Your task to perform on an android device: Set the phone to "Do not disturb". Image 0: 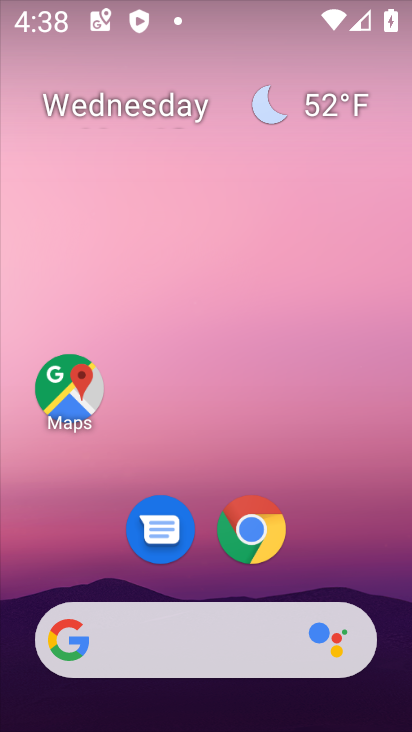
Step 0: drag from (343, 559) to (228, 55)
Your task to perform on an android device: Set the phone to "Do not disturb". Image 1: 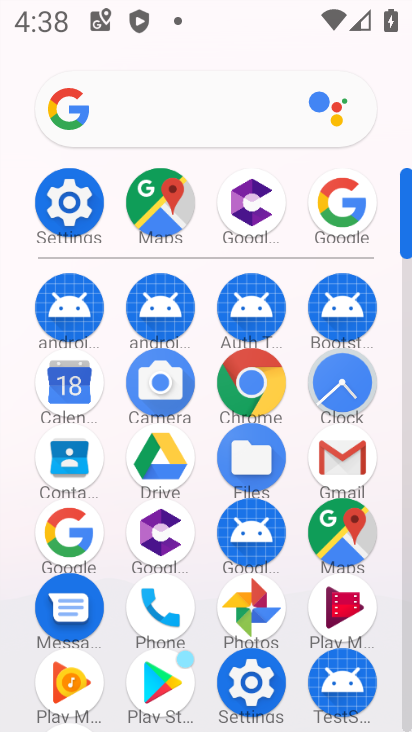
Step 1: click (69, 201)
Your task to perform on an android device: Set the phone to "Do not disturb". Image 2: 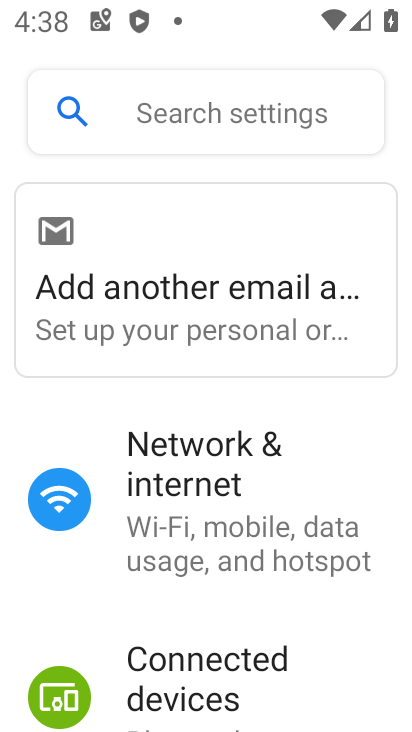
Step 2: drag from (161, 603) to (149, 412)
Your task to perform on an android device: Set the phone to "Do not disturb". Image 3: 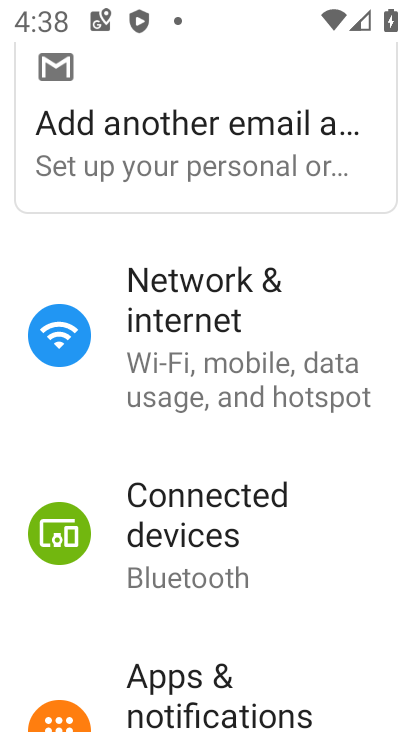
Step 3: drag from (124, 603) to (154, 431)
Your task to perform on an android device: Set the phone to "Do not disturb". Image 4: 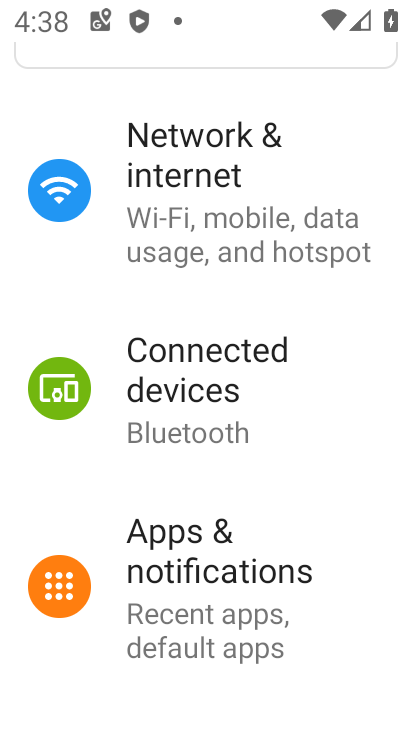
Step 4: drag from (127, 507) to (157, 356)
Your task to perform on an android device: Set the phone to "Do not disturb". Image 5: 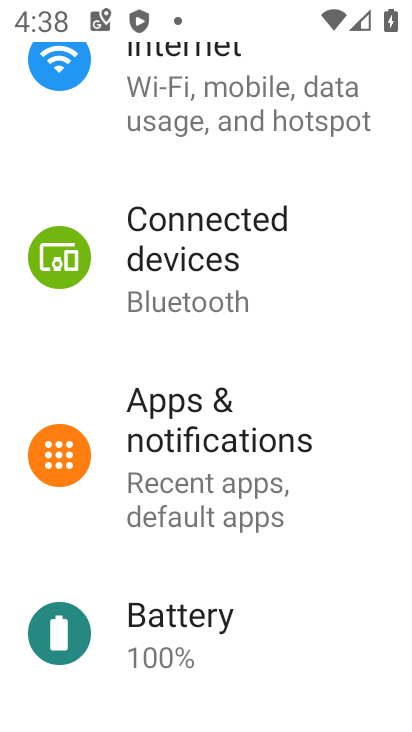
Step 5: drag from (163, 548) to (206, 308)
Your task to perform on an android device: Set the phone to "Do not disturb". Image 6: 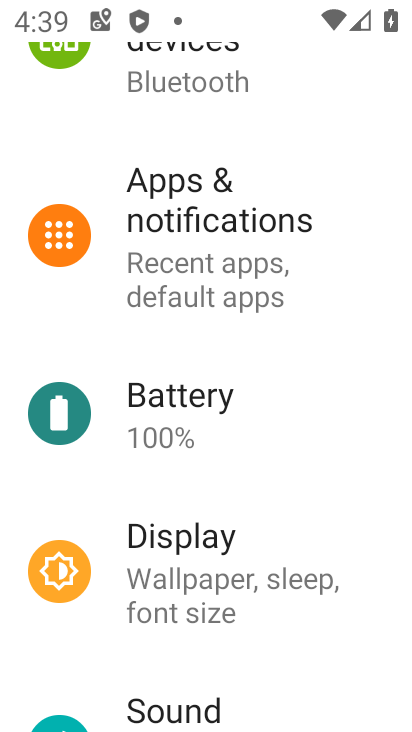
Step 6: drag from (180, 512) to (187, 315)
Your task to perform on an android device: Set the phone to "Do not disturb". Image 7: 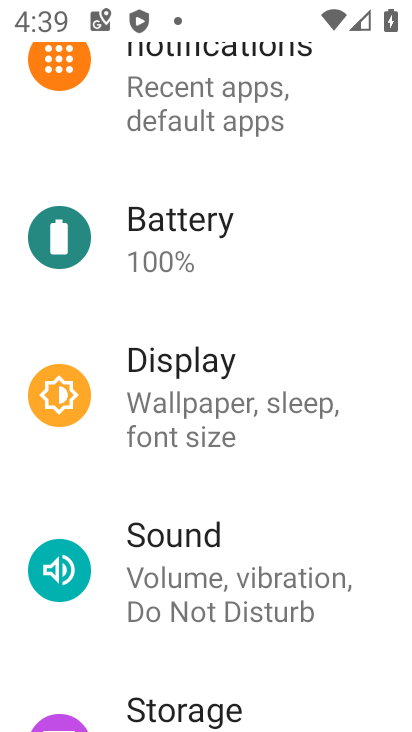
Step 7: click (179, 552)
Your task to perform on an android device: Set the phone to "Do not disturb". Image 8: 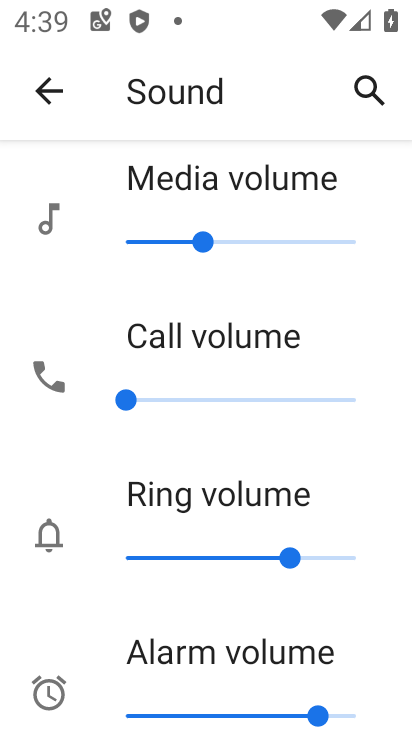
Step 8: drag from (218, 613) to (237, 474)
Your task to perform on an android device: Set the phone to "Do not disturb". Image 9: 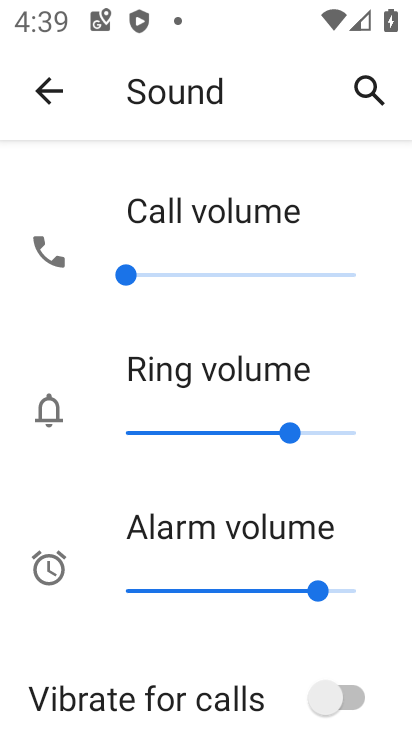
Step 9: drag from (198, 640) to (245, 482)
Your task to perform on an android device: Set the phone to "Do not disturb". Image 10: 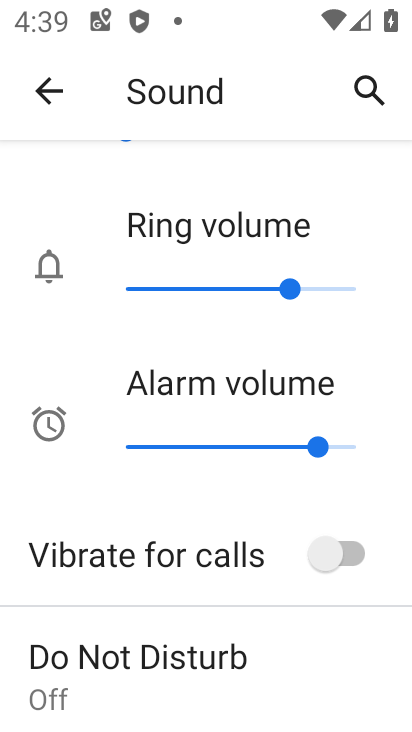
Step 10: drag from (187, 616) to (238, 472)
Your task to perform on an android device: Set the phone to "Do not disturb". Image 11: 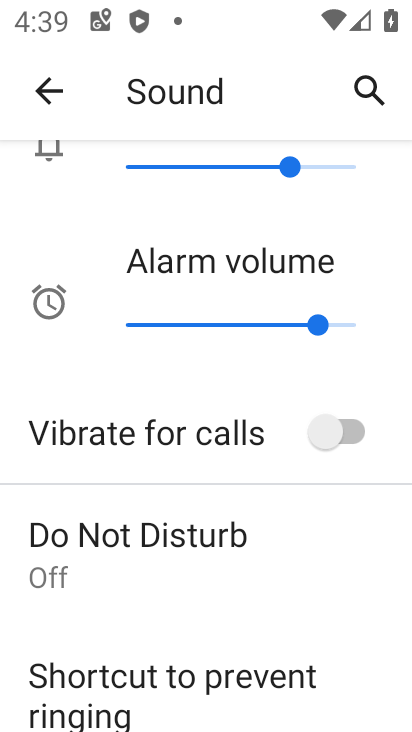
Step 11: click (184, 539)
Your task to perform on an android device: Set the phone to "Do not disturb". Image 12: 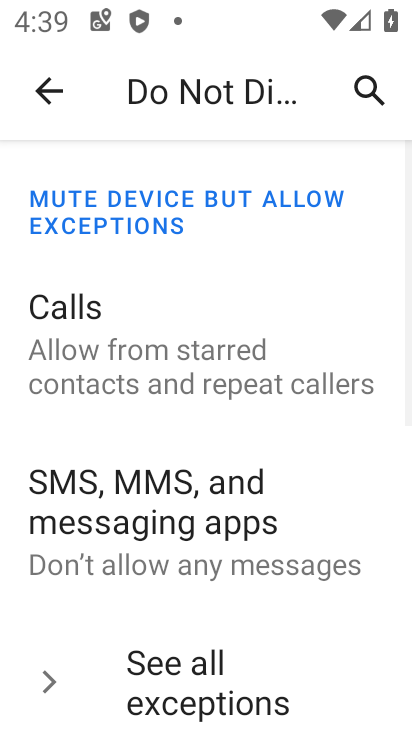
Step 12: drag from (238, 627) to (271, 494)
Your task to perform on an android device: Set the phone to "Do not disturb". Image 13: 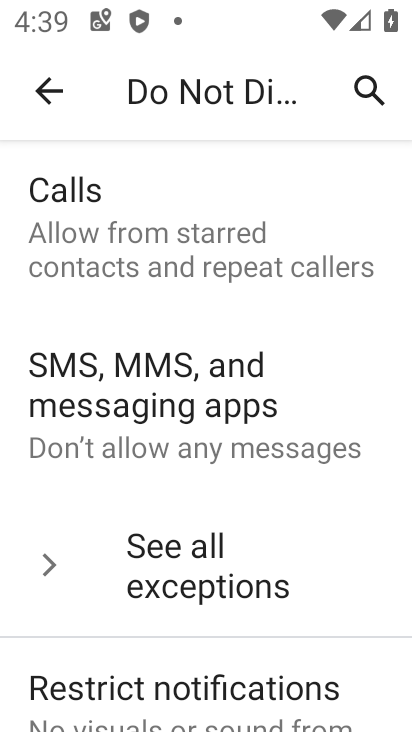
Step 13: drag from (223, 636) to (292, 474)
Your task to perform on an android device: Set the phone to "Do not disturb". Image 14: 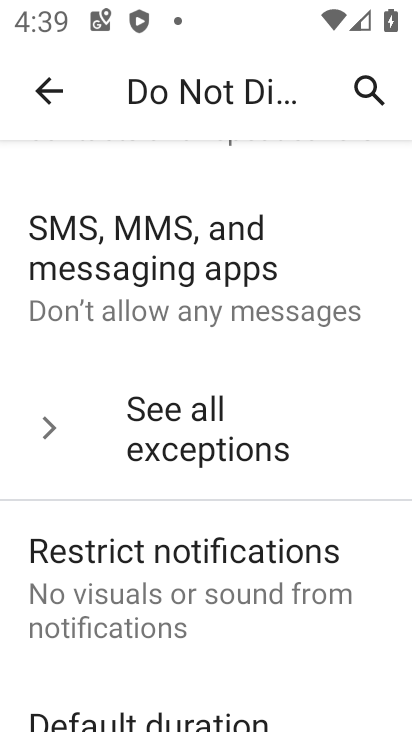
Step 14: drag from (220, 650) to (299, 478)
Your task to perform on an android device: Set the phone to "Do not disturb". Image 15: 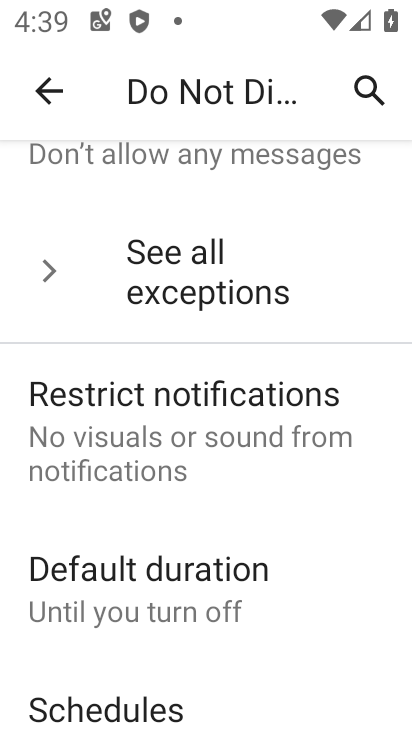
Step 15: drag from (241, 641) to (289, 351)
Your task to perform on an android device: Set the phone to "Do not disturb". Image 16: 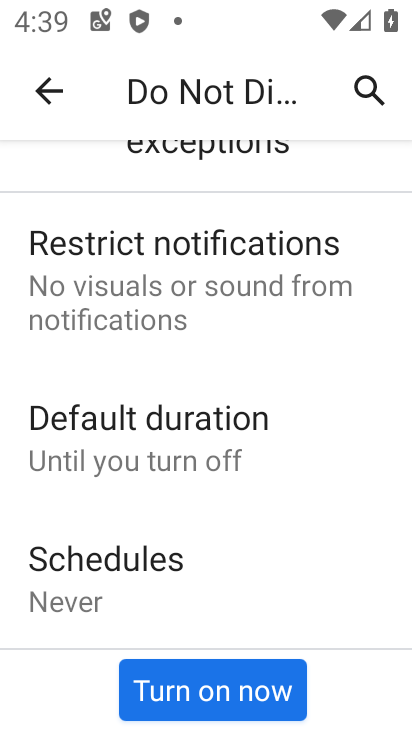
Step 16: click (221, 690)
Your task to perform on an android device: Set the phone to "Do not disturb". Image 17: 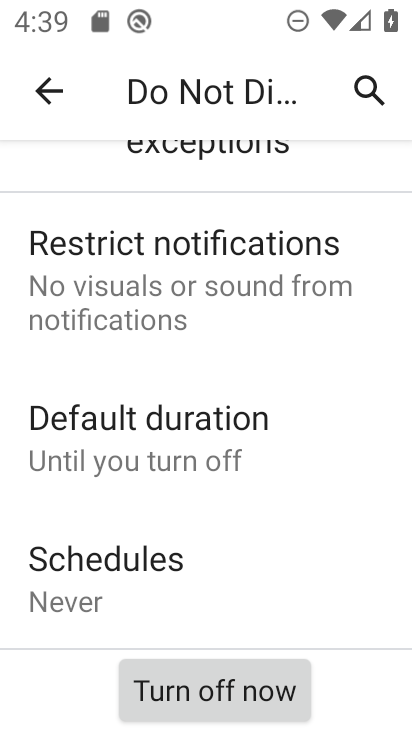
Step 17: task complete